Your task to perform on an android device: Go to Android settings Image 0: 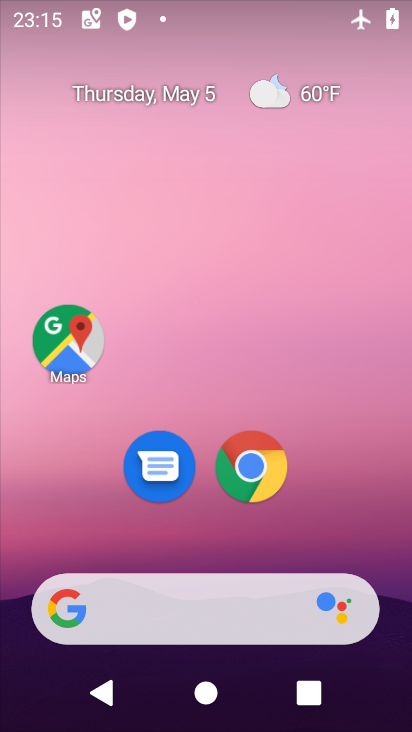
Step 0: drag from (216, 416) to (282, 141)
Your task to perform on an android device: Go to Android settings Image 1: 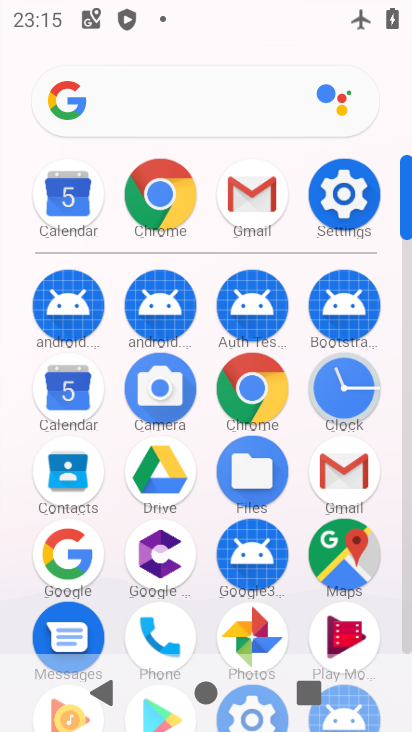
Step 1: click (344, 209)
Your task to perform on an android device: Go to Android settings Image 2: 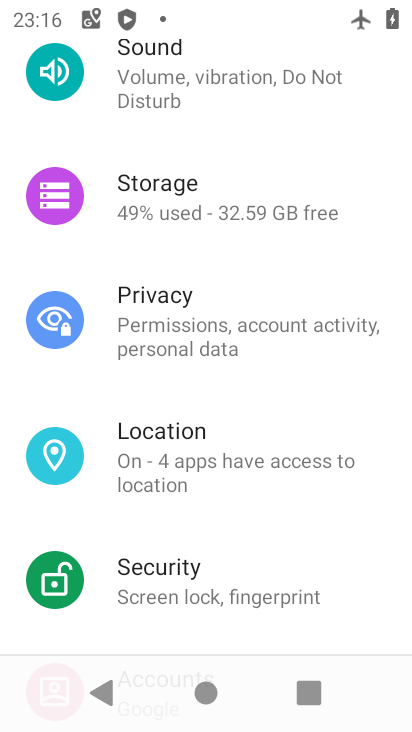
Step 2: drag from (91, 592) to (157, 355)
Your task to perform on an android device: Go to Android settings Image 3: 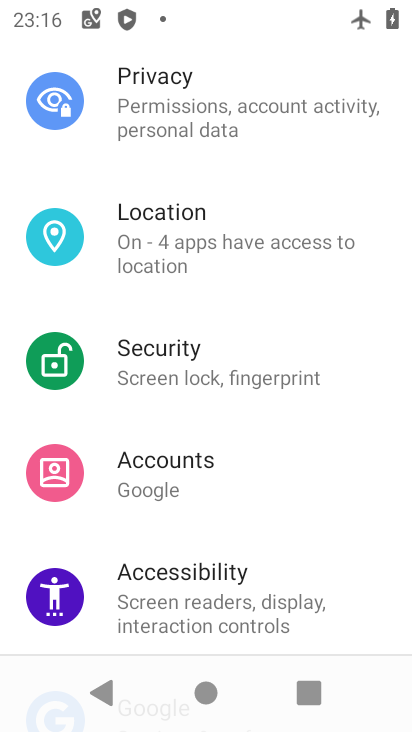
Step 3: drag from (142, 647) to (248, 291)
Your task to perform on an android device: Go to Android settings Image 4: 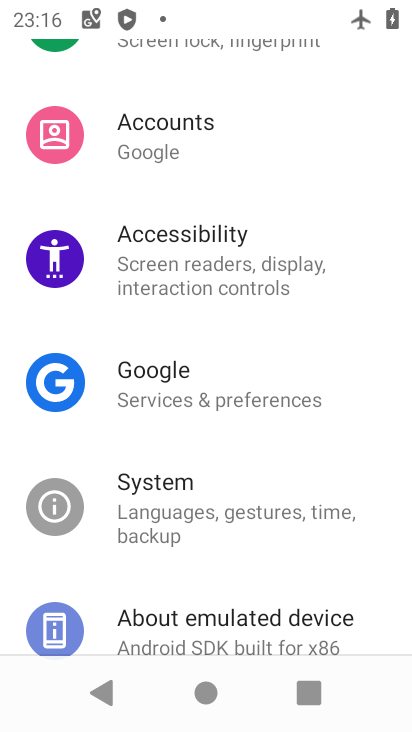
Step 4: drag from (163, 665) to (255, 358)
Your task to perform on an android device: Go to Android settings Image 5: 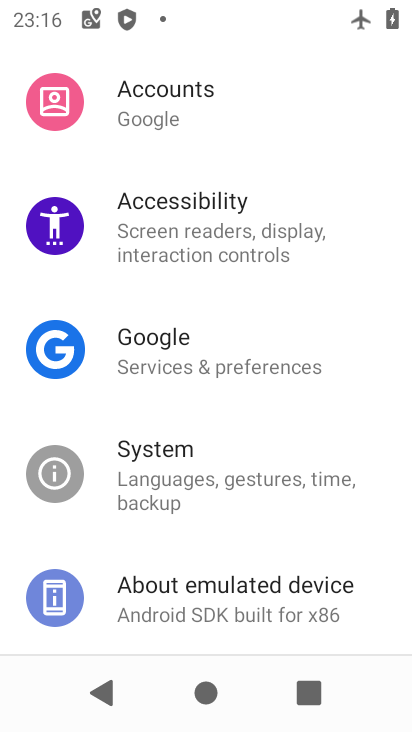
Step 5: click (231, 621)
Your task to perform on an android device: Go to Android settings Image 6: 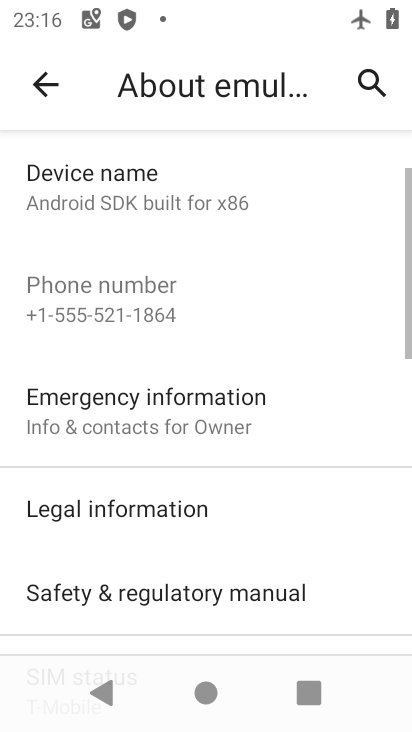
Step 6: task complete